Your task to perform on an android device: make emails show in primary in the gmail app Image 0: 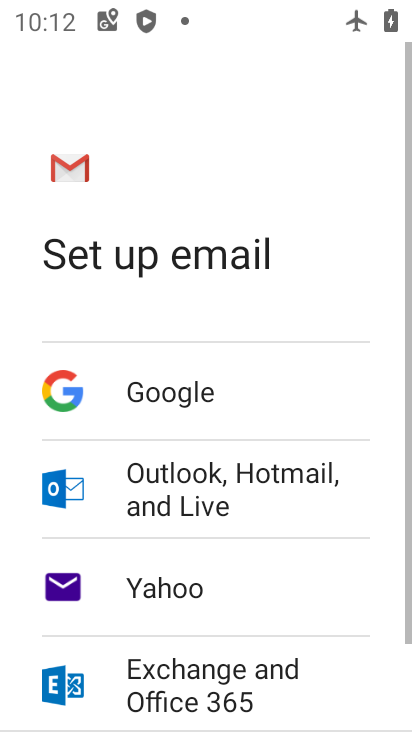
Step 0: press home button
Your task to perform on an android device: make emails show in primary in the gmail app Image 1: 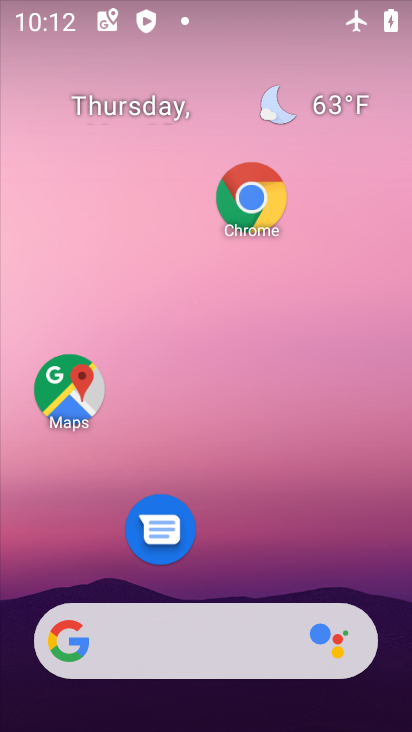
Step 1: drag from (254, 619) to (333, 133)
Your task to perform on an android device: make emails show in primary in the gmail app Image 2: 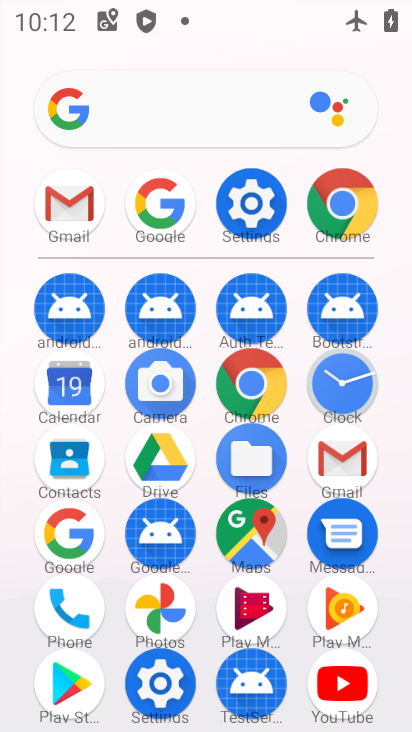
Step 2: click (334, 481)
Your task to perform on an android device: make emails show in primary in the gmail app Image 3: 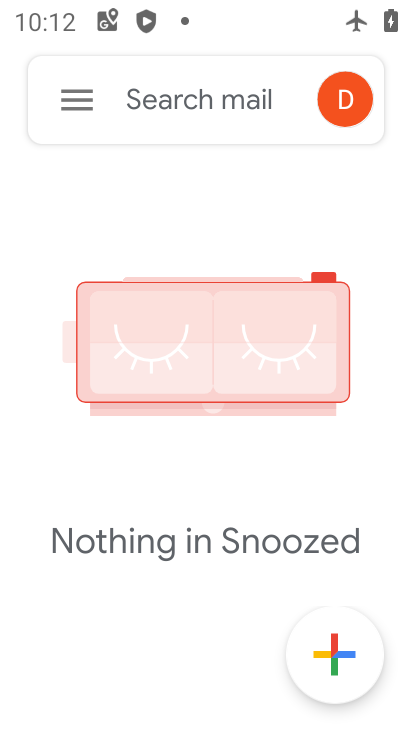
Step 3: click (73, 101)
Your task to perform on an android device: make emails show in primary in the gmail app Image 4: 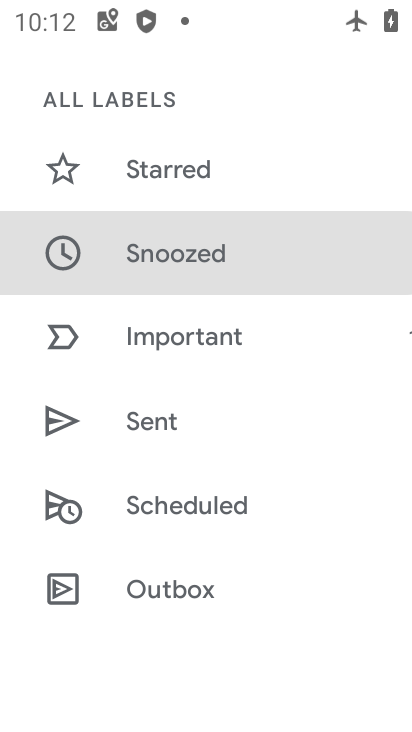
Step 4: drag from (140, 446) to (212, 0)
Your task to perform on an android device: make emails show in primary in the gmail app Image 5: 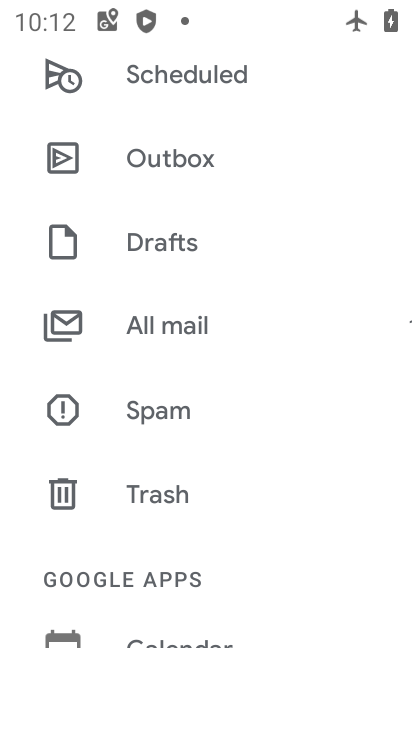
Step 5: drag from (175, 605) to (249, 94)
Your task to perform on an android device: make emails show in primary in the gmail app Image 6: 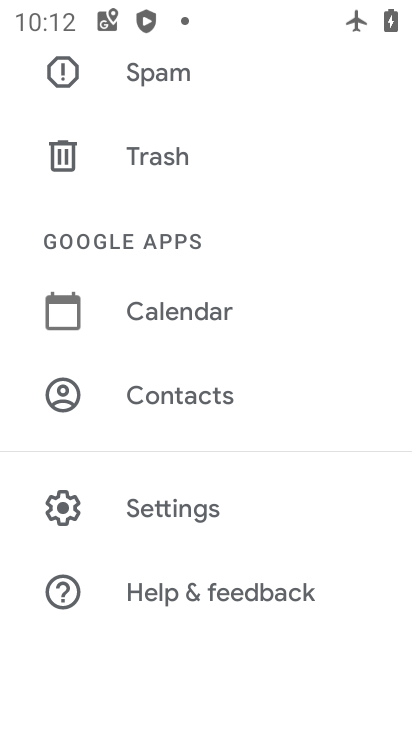
Step 6: click (164, 522)
Your task to perform on an android device: make emails show in primary in the gmail app Image 7: 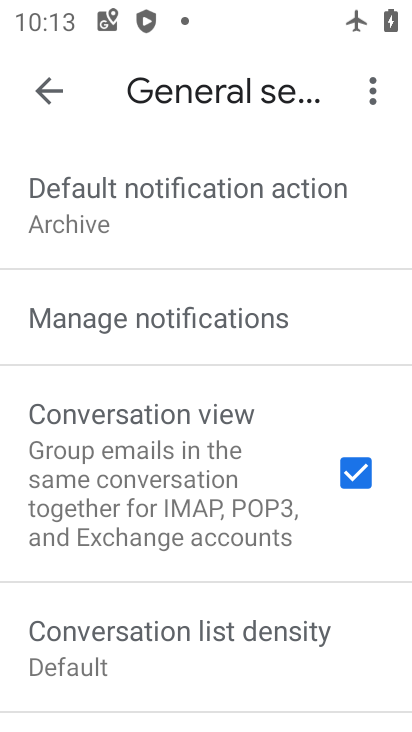
Step 7: click (55, 108)
Your task to perform on an android device: make emails show in primary in the gmail app Image 8: 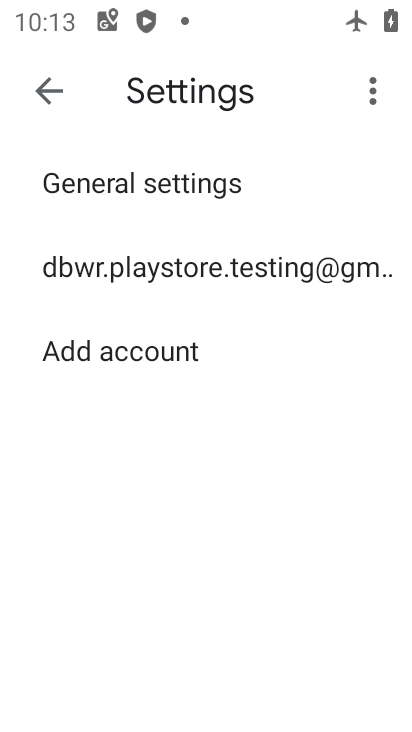
Step 8: task complete